Your task to perform on an android device: Turn on the flashlight Image 0: 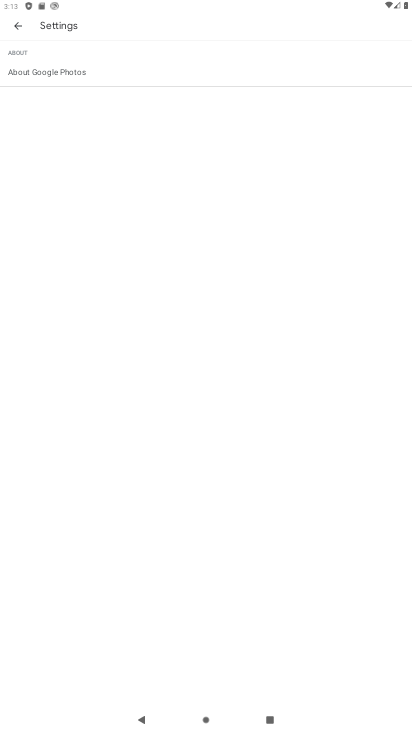
Step 0: press home button
Your task to perform on an android device: Turn on the flashlight Image 1: 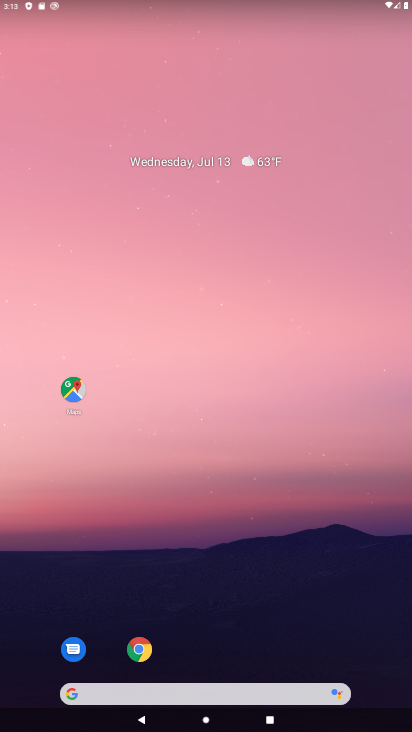
Step 1: drag from (211, 565) to (213, 42)
Your task to perform on an android device: Turn on the flashlight Image 2: 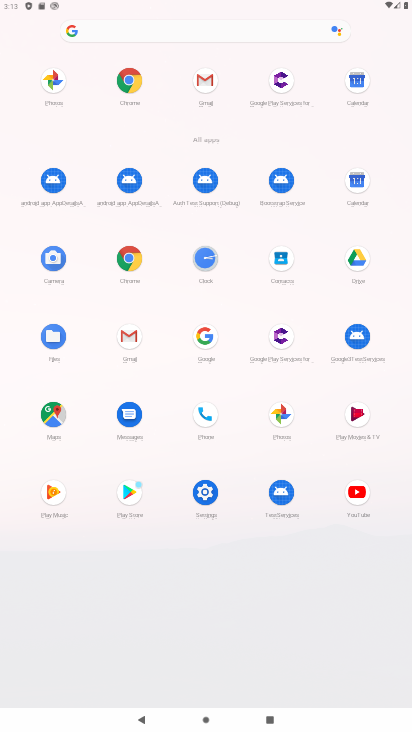
Step 2: click (208, 483)
Your task to perform on an android device: Turn on the flashlight Image 3: 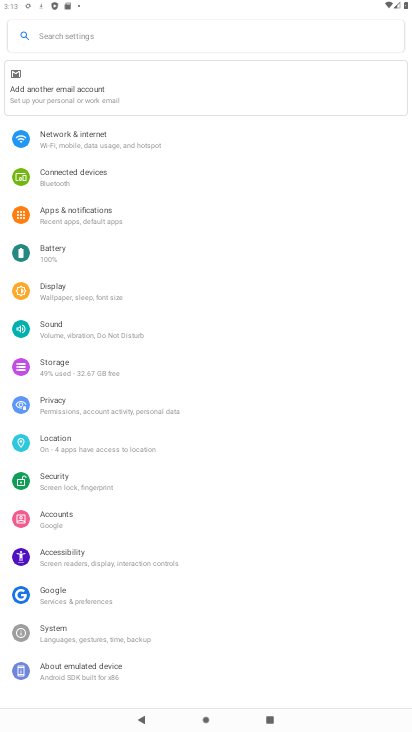
Step 3: task complete